Your task to perform on an android device: Open the stopwatch Image 0: 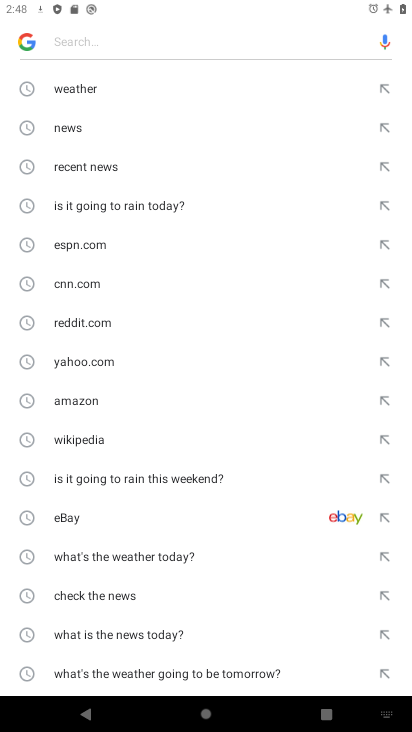
Step 0: press home button
Your task to perform on an android device: Open the stopwatch Image 1: 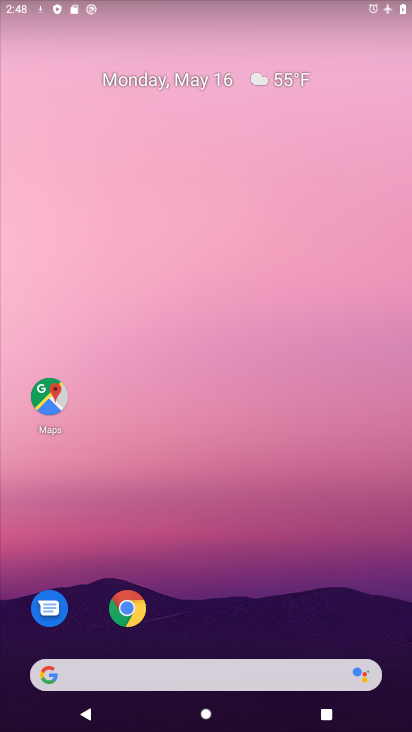
Step 1: drag from (192, 607) to (192, 183)
Your task to perform on an android device: Open the stopwatch Image 2: 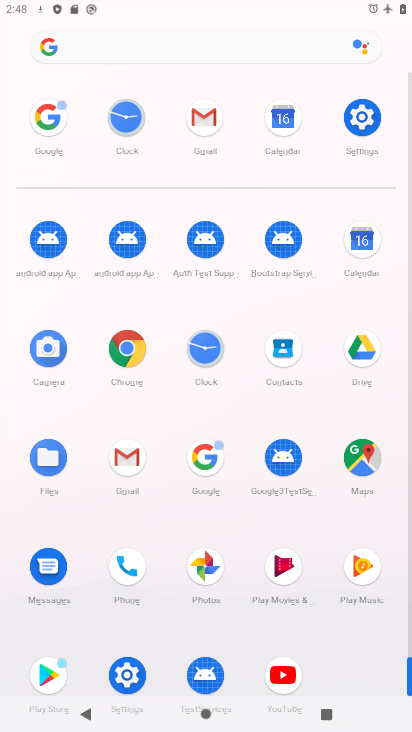
Step 2: click (209, 348)
Your task to perform on an android device: Open the stopwatch Image 3: 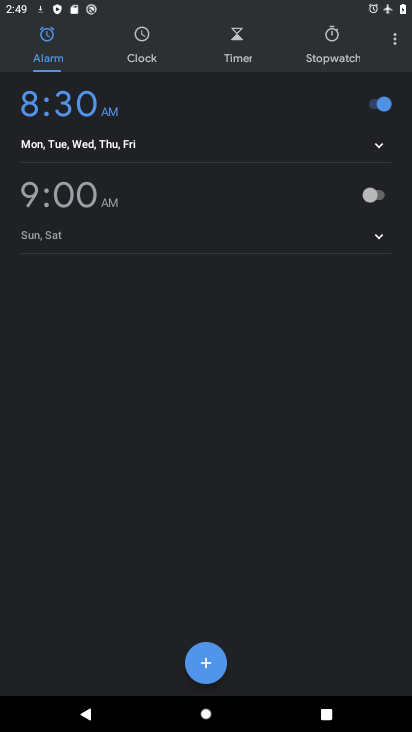
Step 3: click (319, 41)
Your task to perform on an android device: Open the stopwatch Image 4: 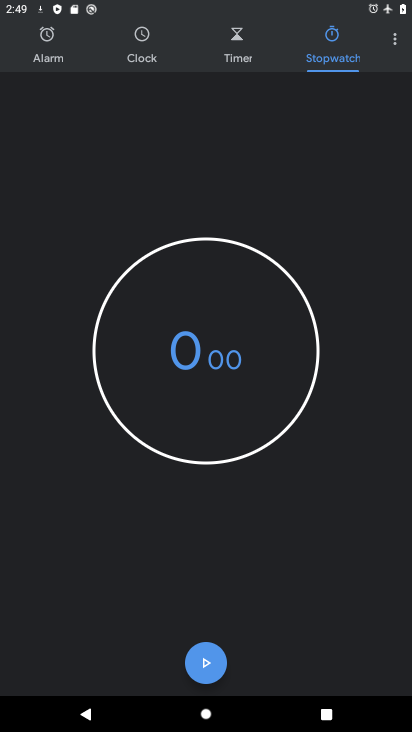
Step 4: task complete